Your task to perform on an android device: stop showing notifications on the lock screen Image 0: 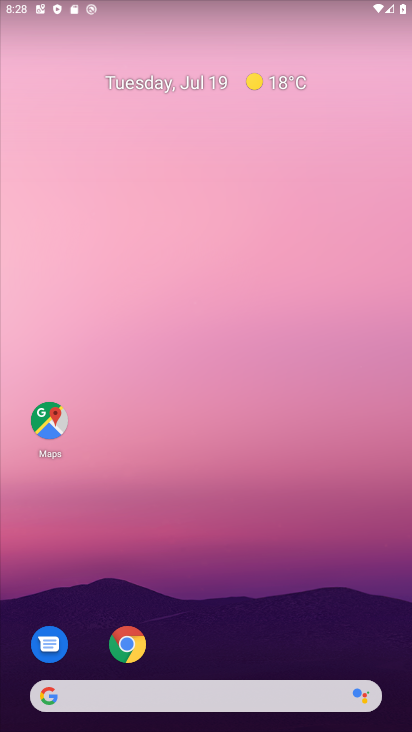
Step 0: drag from (229, 729) to (206, 182)
Your task to perform on an android device: stop showing notifications on the lock screen Image 1: 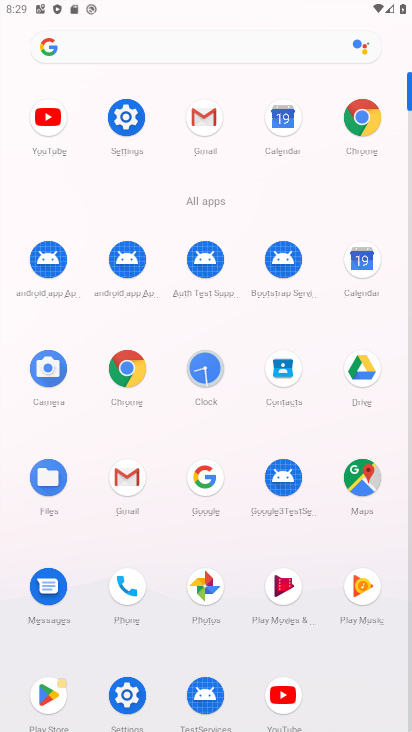
Step 1: click (119, 106)
Your task to perform on an android device: stop showing notifications on the lock screen Image 2: 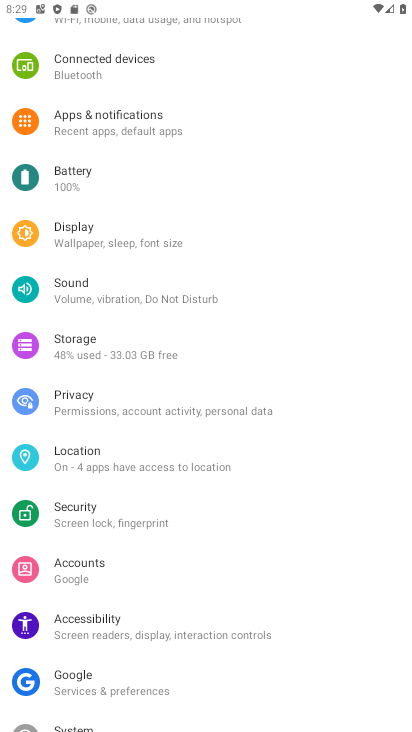
Step 2: click (111, 120)
Your task to perform on an android device: stop showing notifications on the lock screen Image 3: 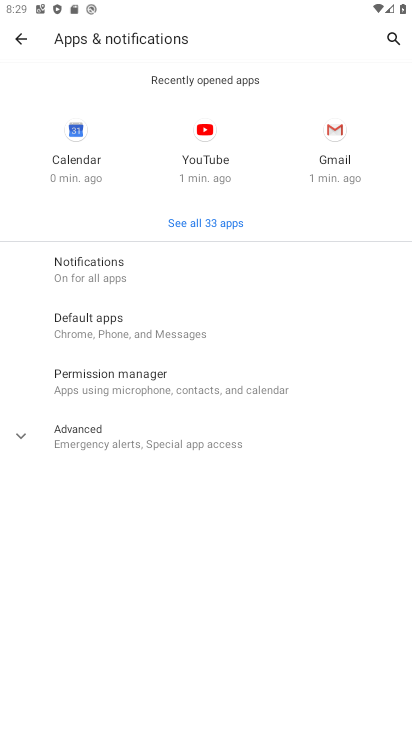
Step 3: click (89, 271)
Your task to perform on an android device: stop showing notifications on the lock screen Image 4: 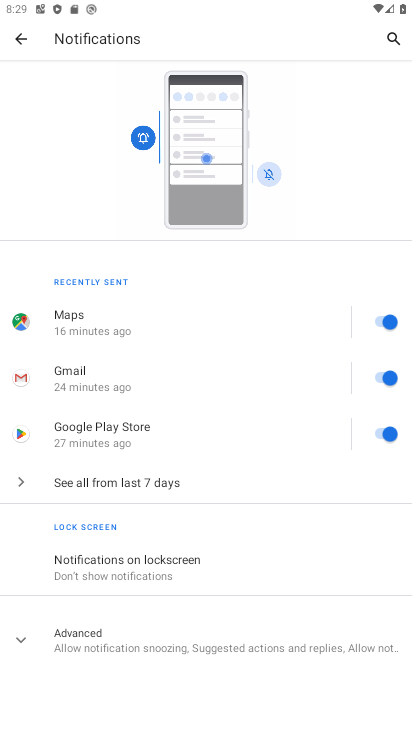
Step 4: task complete